Your task to perform on an android device: see creations saved in the google photos Image 0: 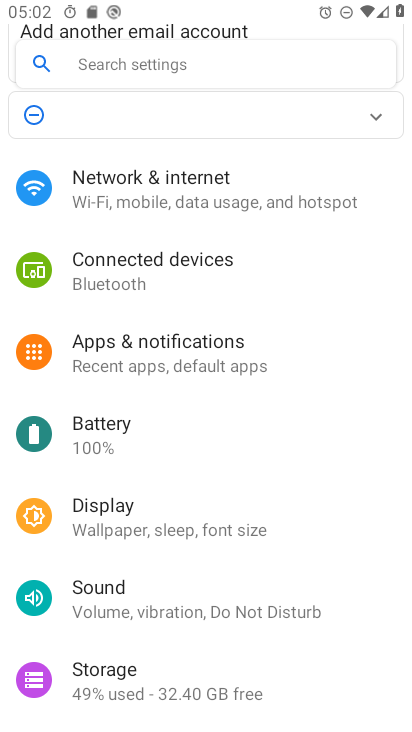
Step 0: press home button
Your task to perform on an android device: see creations saved in the google photos Image 1: 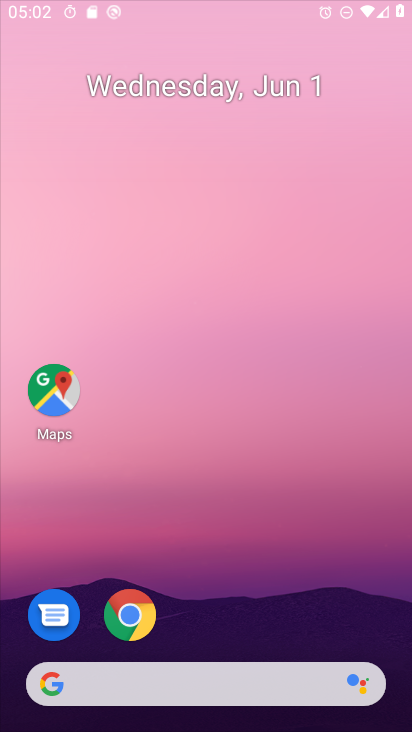
Step 1: drag from (214, 616) to (148, 25)
Your task to perform on an android device: see creations saved in the google photos Image 2: 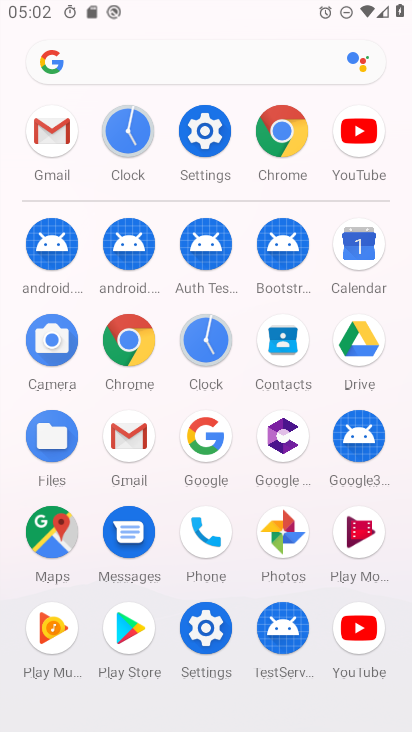
Step 2: click (280, 527)
Your task to perform on an android device: see creations saved in the google photos Image 3: 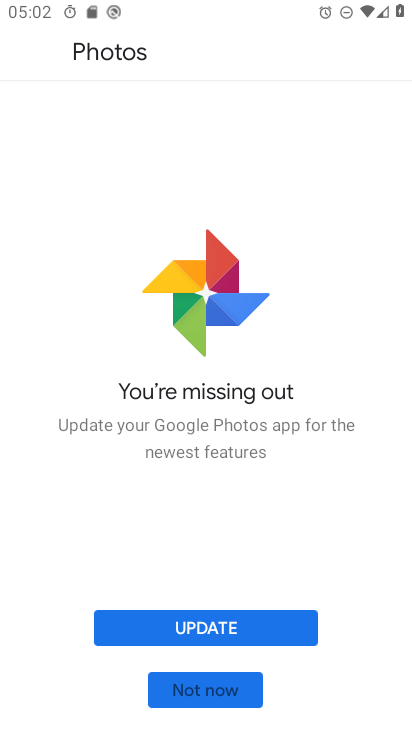
Step 3: click (249, 629)
Your task to perform on an android device: see creations saved in the google photos Image 4: 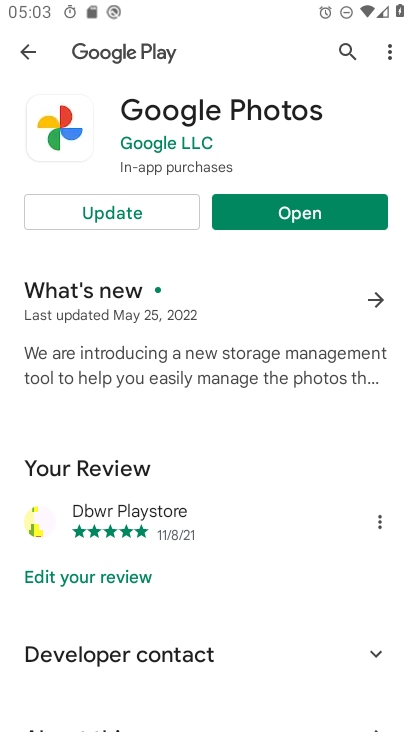
Step 4: click (167, 214)
Your task to perform on an android device: see creations saved in the google photos Image 5: 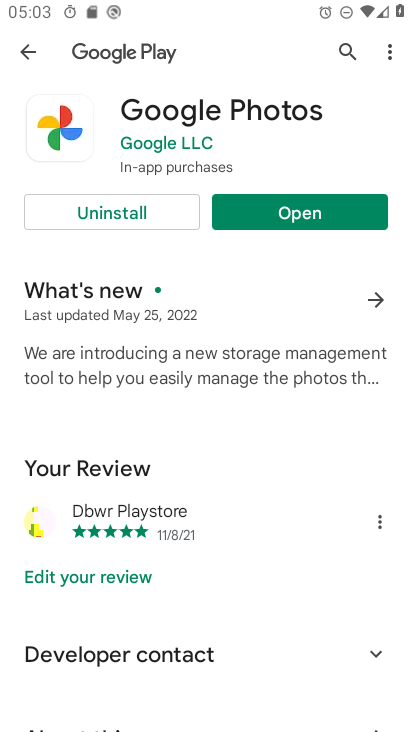
Step 5: click (298, 215)
Your task to perform on an android device: see creations saved in the google photos Image 6: 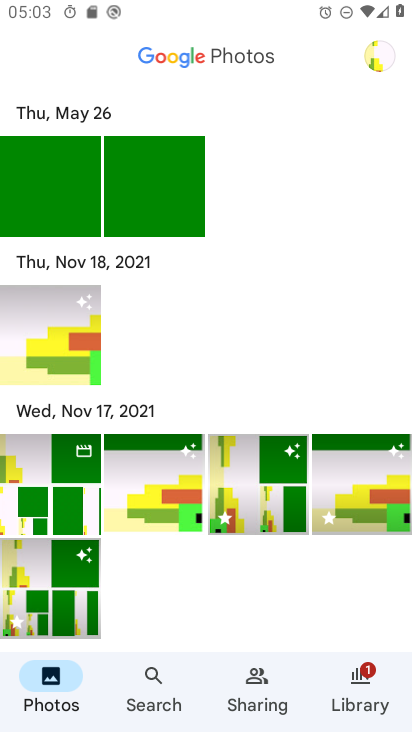
Step 6: click (346, 690)
Your task to perform on an android device: see creations saved in the google photos Image 7: 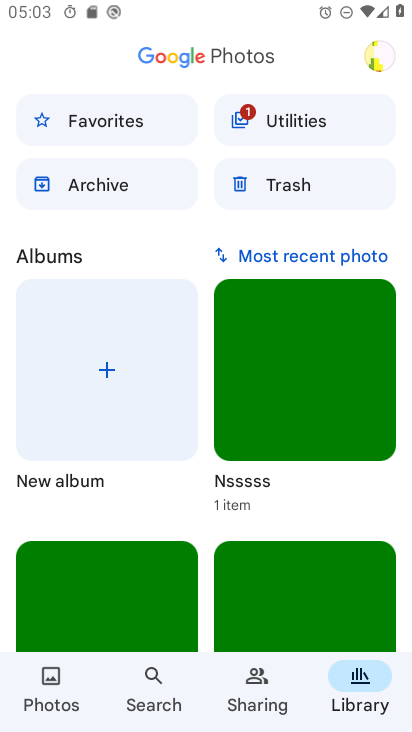
Step 7: task complete